Your task to perform on an android device: Open the map Image 0: 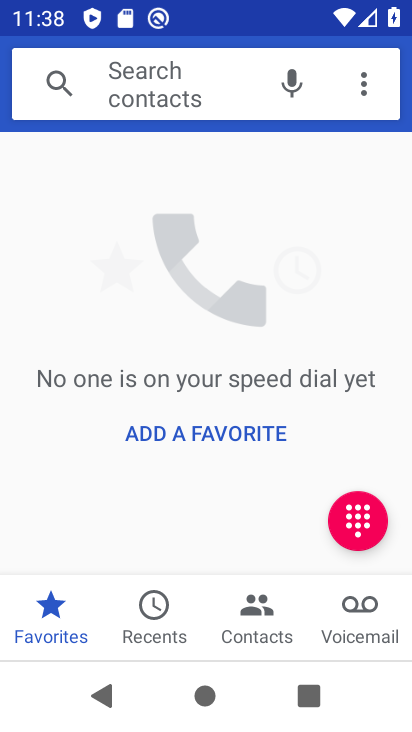
Step 0: press back button
Your task to perform on an android device: Open the map Image 1: 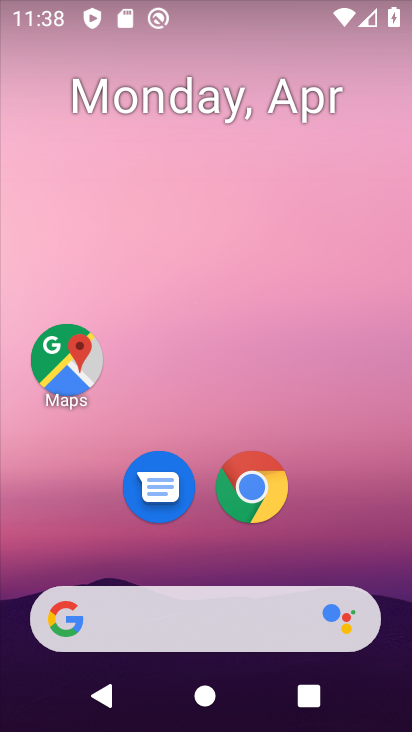
Step 1: click (64, 364)
Your task to perform on an android device: Open the map Image 2: 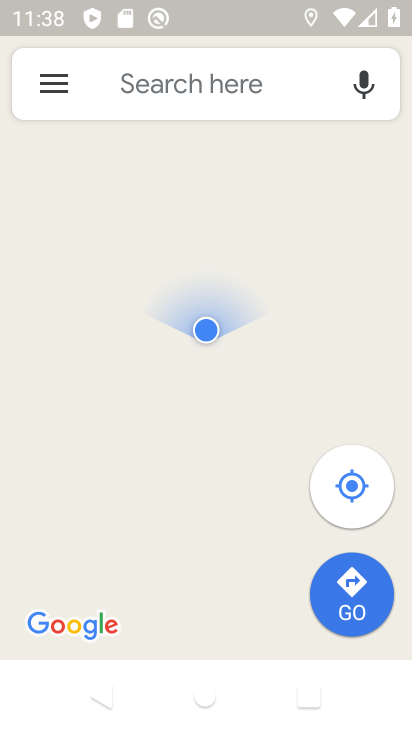
Step 2: task complete